Your task to perform on an android device: Open the stopwatch Image 0: 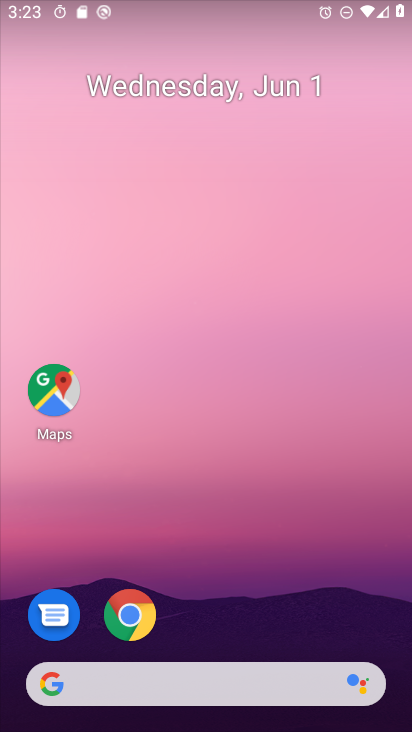
Step 0: drag from (248, 588) to (257, 94)
Your task to perform on an android device: Open the stopwatch Image 1: 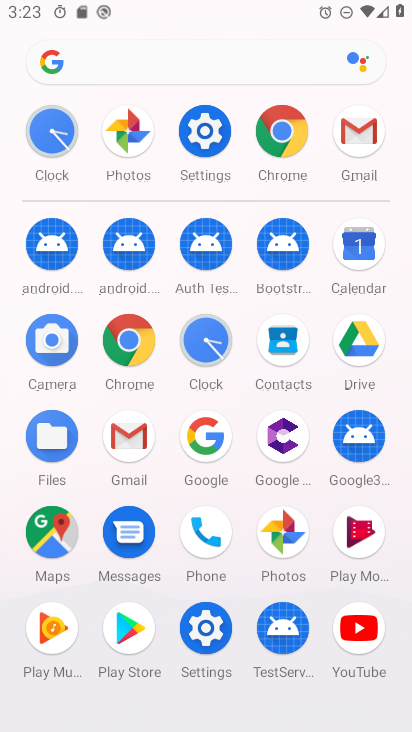
Step 1: click (57, 135)
Your task to perform on an android device: Open the stopwatch Image 2: 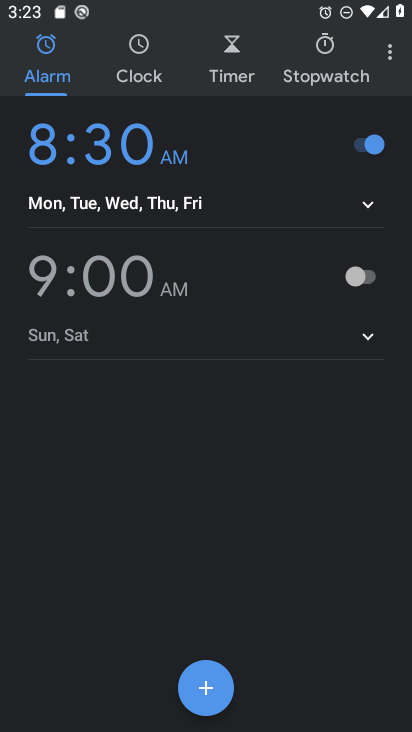
Step 2: click (350, 57)
Your task to perform on an android device: Open the stopwatch Image 3: 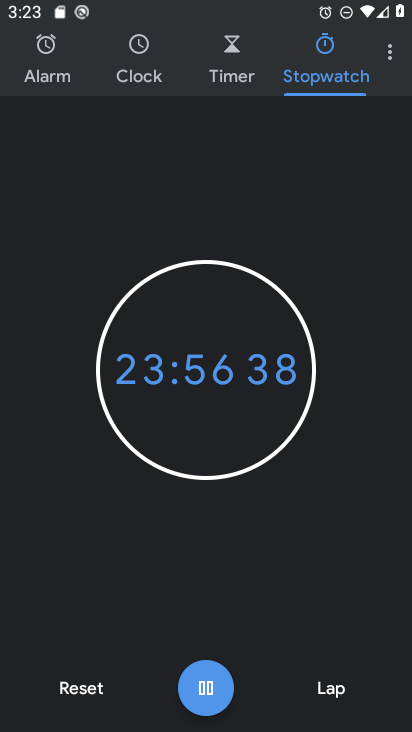
Step 3: task complete